Your task to perform on an android device: Go to Google Image 0: 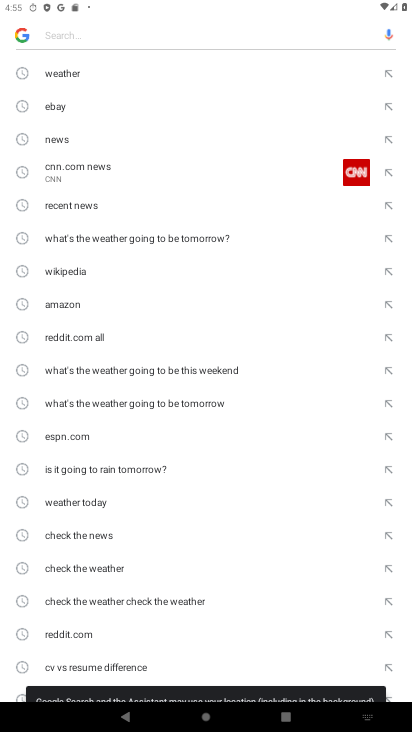
Step 0: press home button
Your task to perform on an android device: Go to Google Image 1: 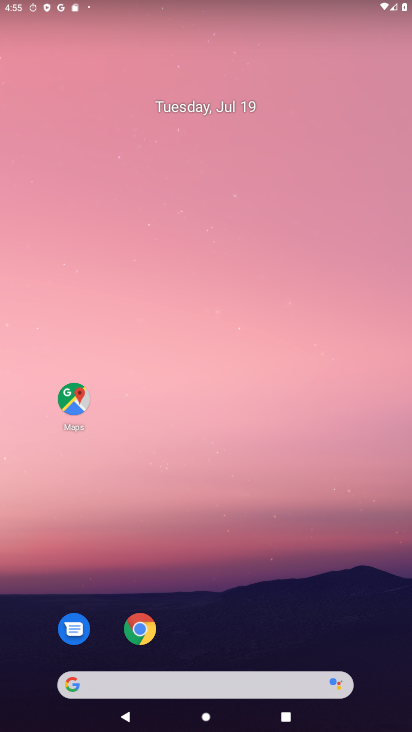
Step 1: drag from (193, 620) to (150, 58)
Your task to perform on an android device: Go to Google Image 2: 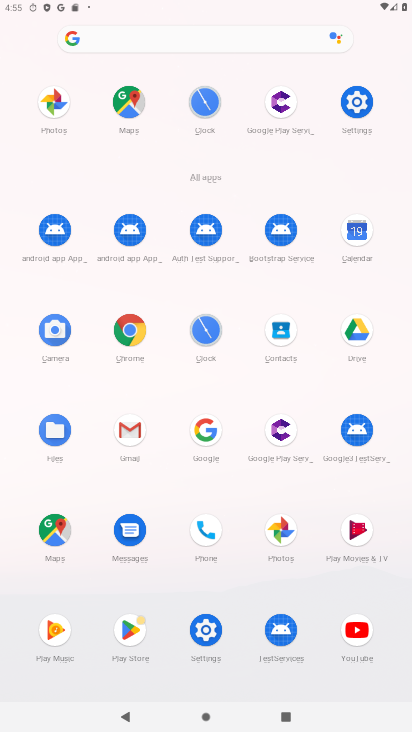
Step 2: drag from (207, 431) to (155, 258)
Your task to perform on an android device: Go to Google Image 3: 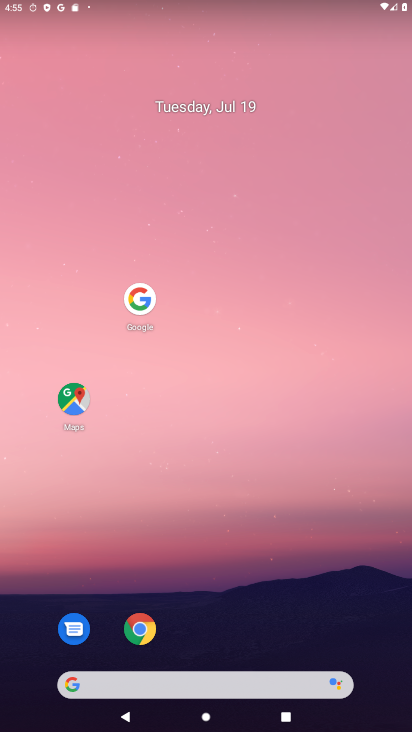
Step 3: click (131, 303)
Your task to perform on an android device: Go to Google Image 4: 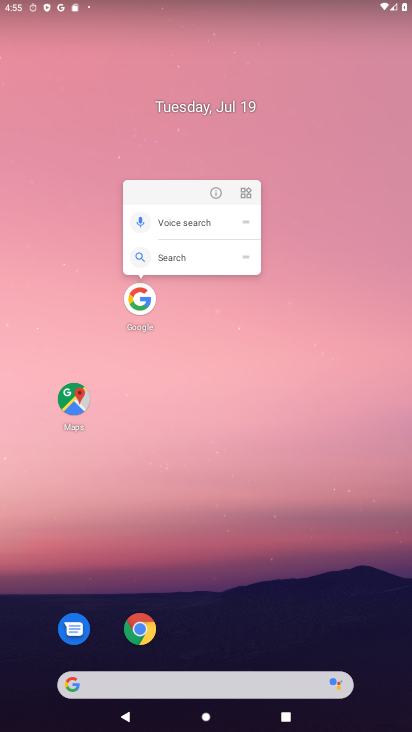
Step 4: click (143, 306)
Your task to perform on an android device: Go to Google Image 5: 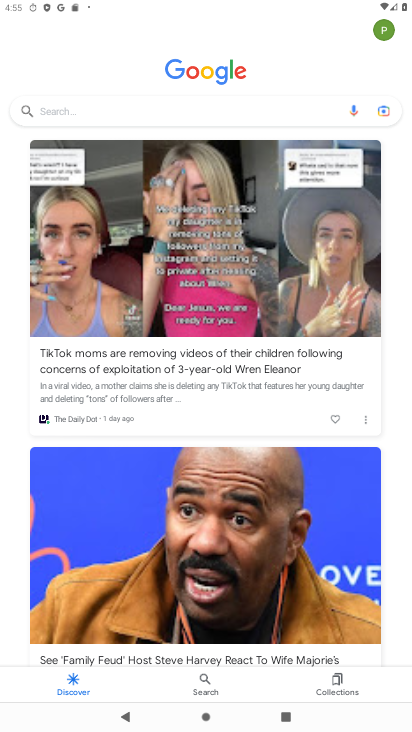
Step 5: task complete